Your task to perform on an android device: Go to Yahoo.com Image 0: 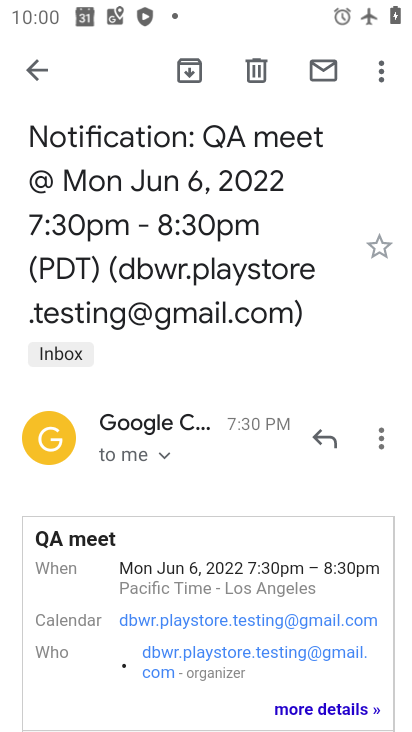
Step 0: press home button
Your task to perform on an android device: Go to Yahoo.com Image 1: 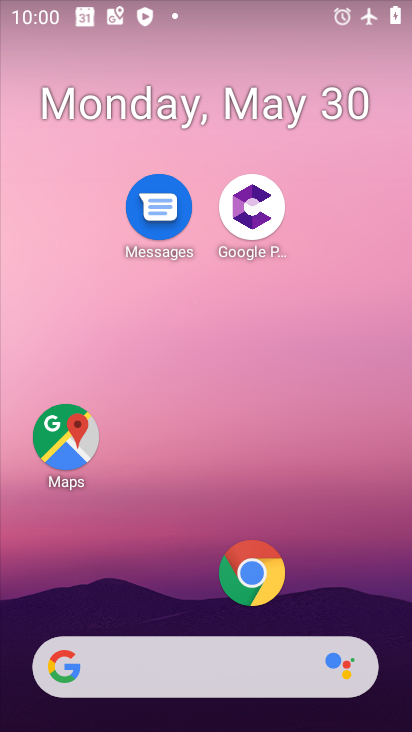
Step 1: drag from (175, 621) to (238, 114)
Your task to perform on an android device: Go to Yahoo.com Image 2: 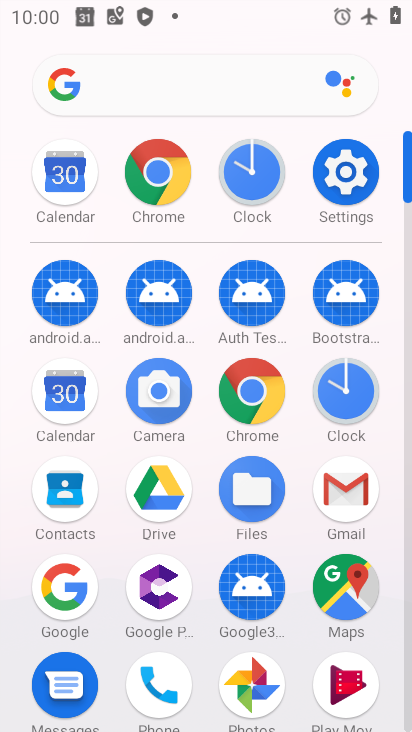
Step 2: click (268, 410)
Your task to perform on an android device: Go to Yahoo.com Image 3: 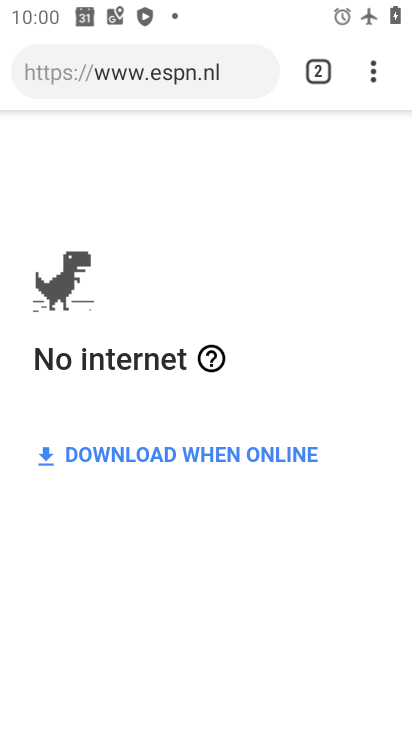
Step 3: click (189, 70)
Your task to perform on an android device: Go to Yahoo.com Image 4: 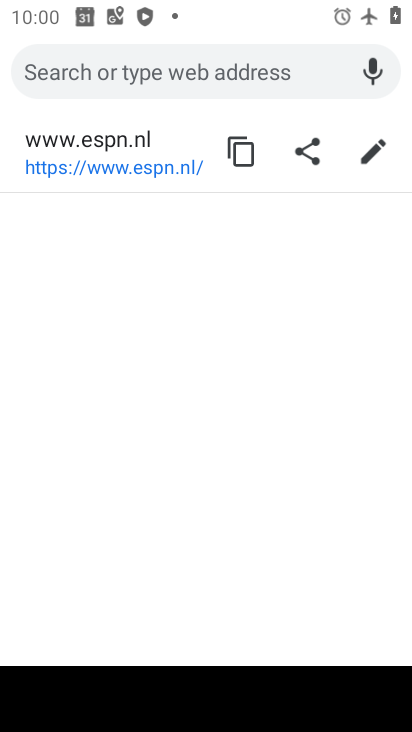
Step 4: type "yahoo"
Your task to perform on an android device: Go to Yahoo.com Image 5: 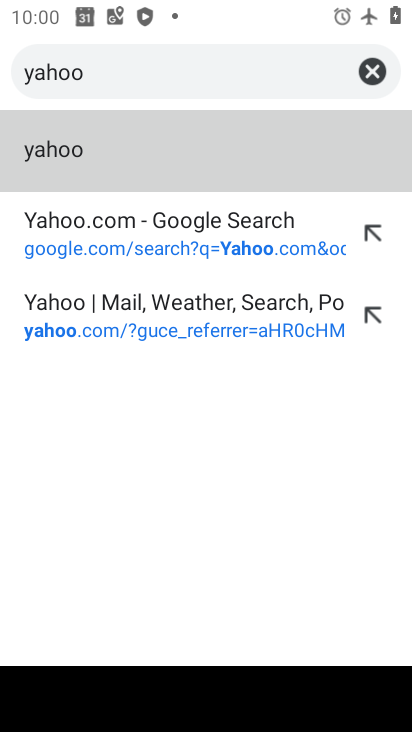
Step 5: click (194, 302)
Your task to perform on an android device: Go to Yahoo.com Image 6: 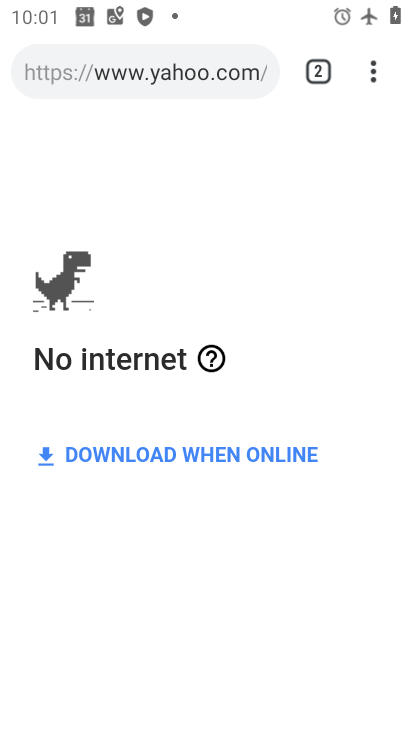
Step 6: task complete